Your task to perform on an android device: Open calendar and show me the third week of next month Image 0: 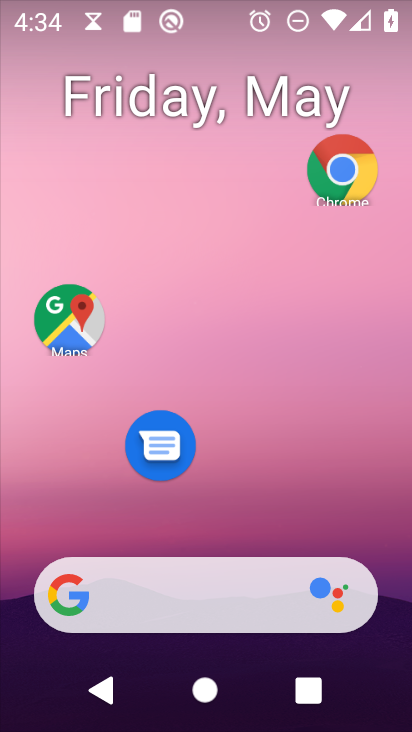
Step 0: drag from (254, 512) to (219, 32)
Your task to perform on an android device: Open calendar and show me the third week of next month Image 1: 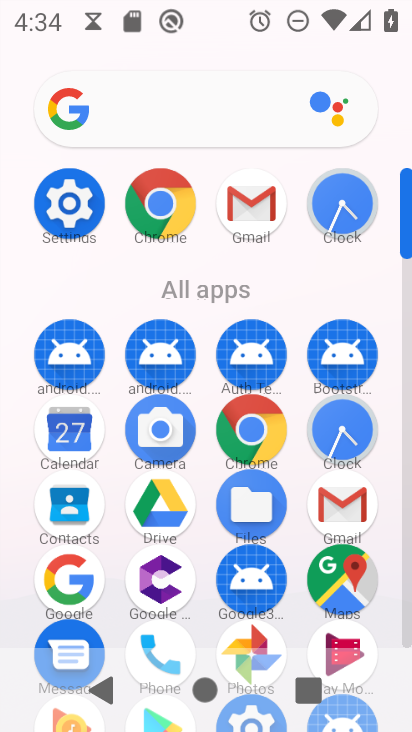
Step 1: click (53, 436)
Your task to perform on an android device: Open calendar and show me the third week of next month Image 2: 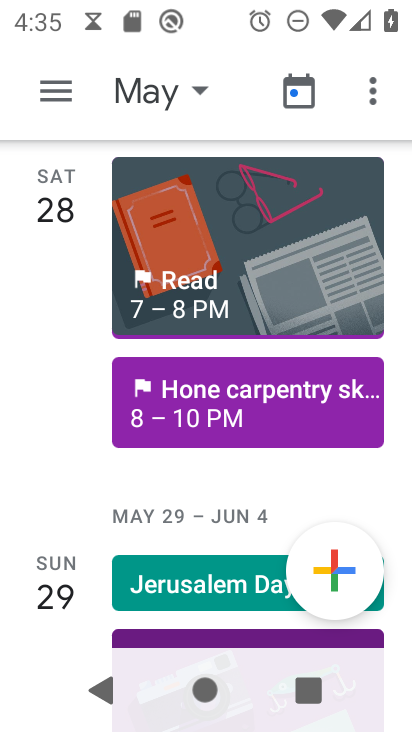
Step 2: click (69, 98)
Your task to perform on an android device: Open calendar and show me the third week of next month Image 3: 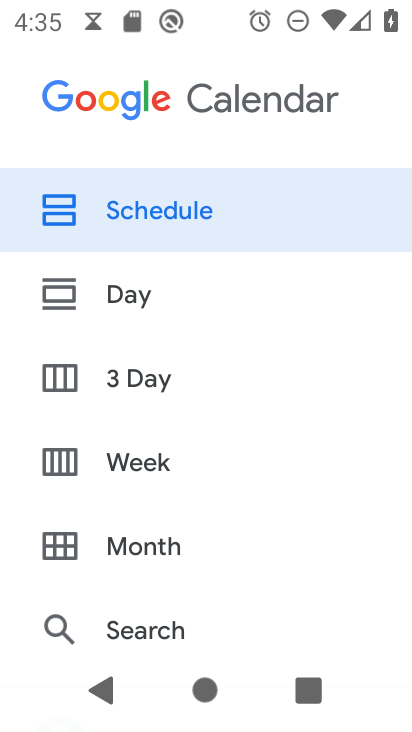
Step 3: click (152, 472)
Your task to perform on an android device: Open calendar and show me the third week of next month Image 4: 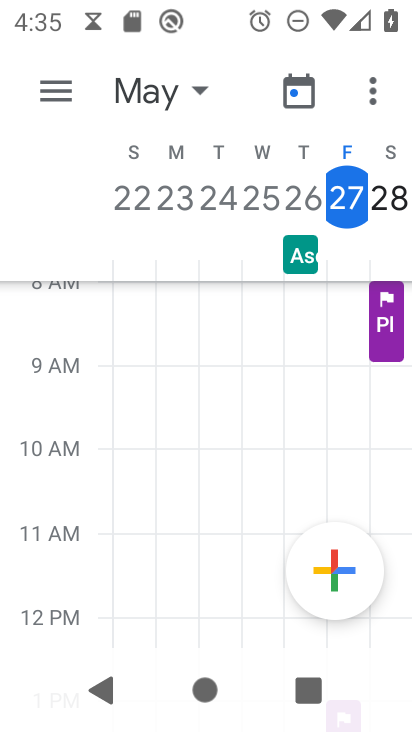
Step 4: click (139, 103)
Your task to perform on an android device: Open calendar and show me the third week of next month Image 5: 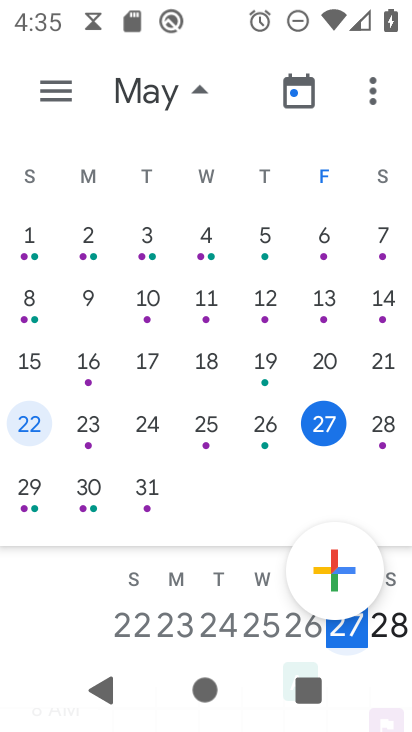
Step 5: drag from (338, 297) to (16, 285)
Your task to perform on an android device: Open calendar and show me the third week of next month Image 6: 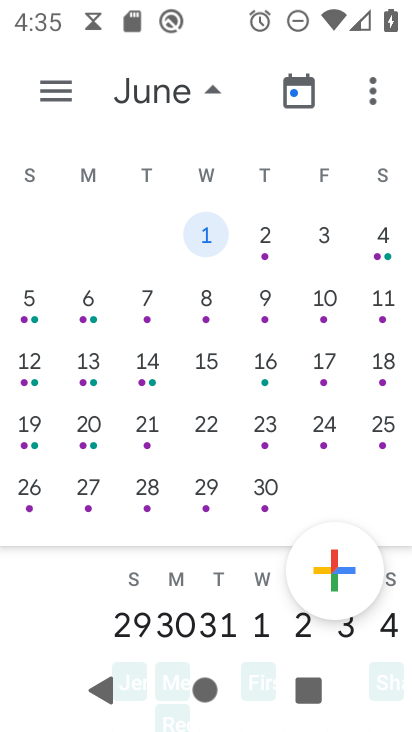
Step 6: click (30, 422)
Your task to perform on an android device: Open calendar and show me the third week of next month Image 7: 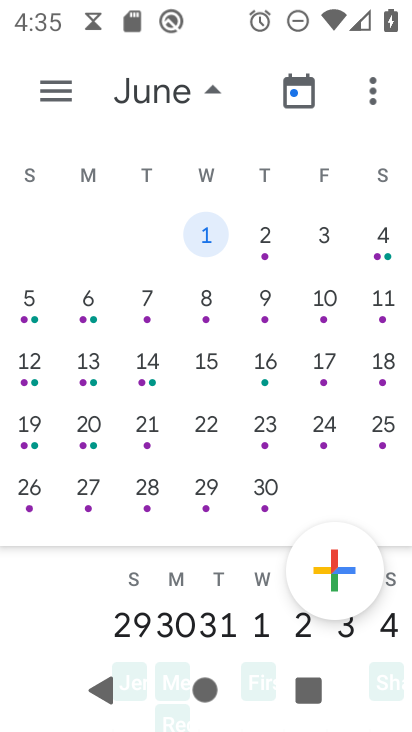
Step 7: click (31, 429)
Your task to perform on an android device: Open calendar and show me the third week of next month Image 8: 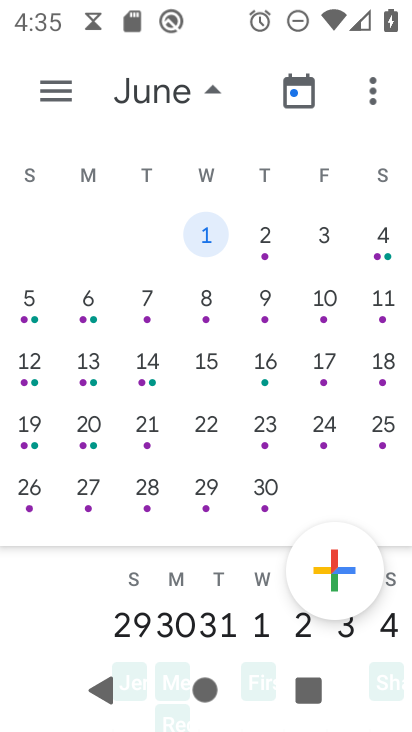
Step 8: click (31, 429)
Your task to perform on an android device: Open calendar and show me the third week of next month Image 9: 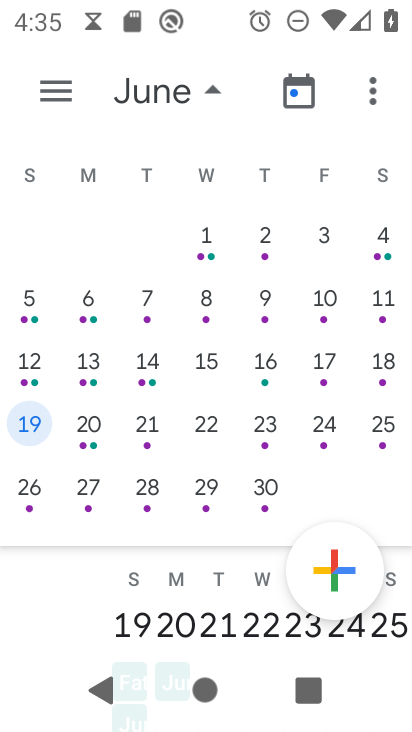
Step 9: task complete